Your task to perform on an android device: uninstall "Yahoo Mail" Image 0: 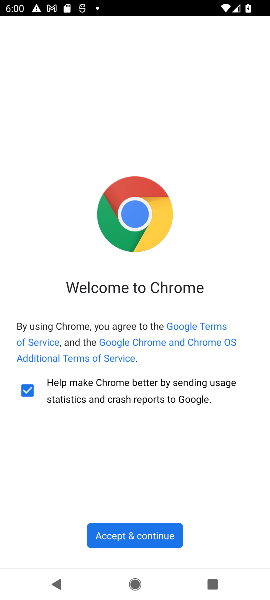
Step 0: press home button
Your task to perform on an android device: uninstall "Yahoo Mail" Image 1: 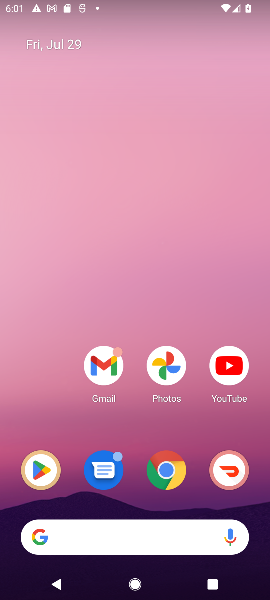
Step 1: drag from (145, 434) to (176, 4)
Your task to perform on an android device: uninstall "Yahoo Mail" Image 2: 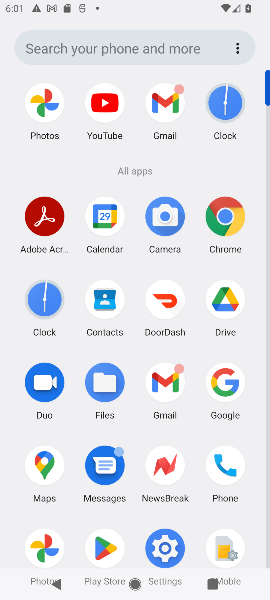
Step 2: click (107, 533)
Your task to perform on an android device: uninstall "Yahoo Mail" Image 3: 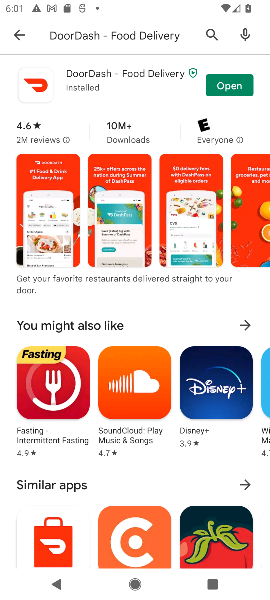
Step 3: click (137, 36)
Your task to perform on an android device: uninstall "Yahoo Mail" Image 4: 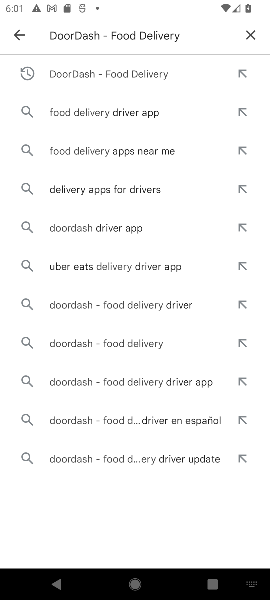
Step 4: click (246, 37)
Your task to perform on an android device: uninstall "Yahoo Mail" Image 5: 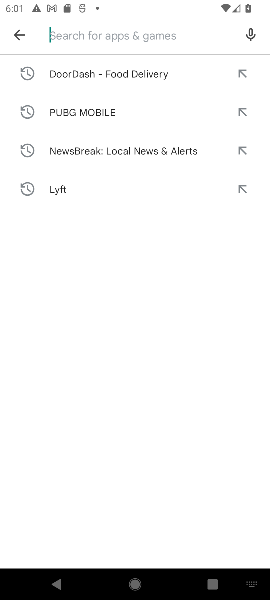
Step 5: type "Yahoo Mail"
Your task to perform on an android device: uninstall "Yahoo Mail" Image 6: 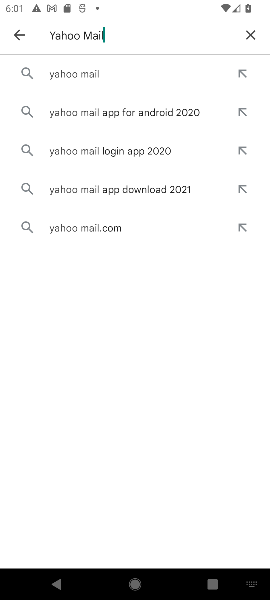
Step 6: press enter
Your task to perform on an android device: uninstall "Yahoo Mail" Image 7: 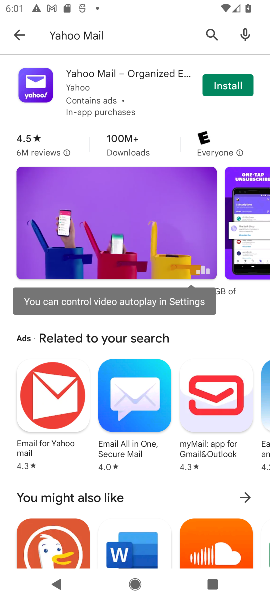
Step 7: task complete